Your task to perform on an android device: Open Chrome and go to settings Image 0: 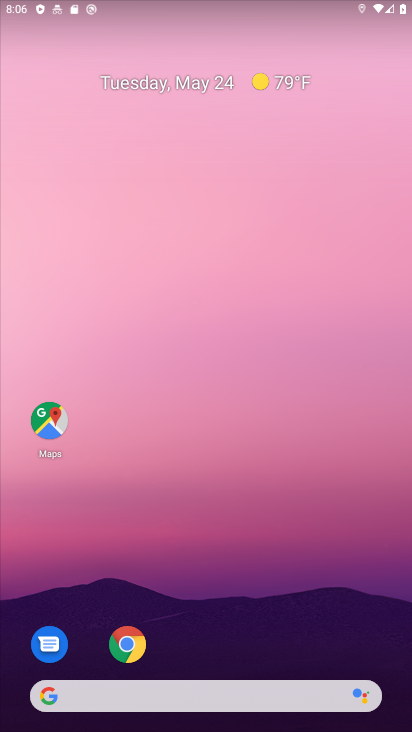
Step 0: drag from (265, 708) to (248, 26)
Your task to perform on an android device: Open Chrome and go to settings Image 1: 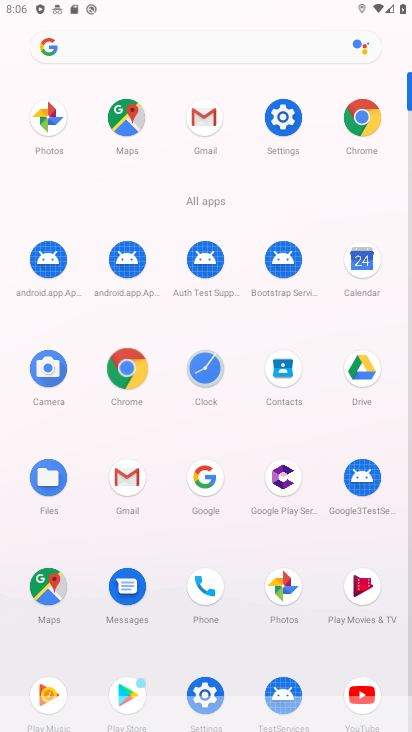
Step 1: click (280, 127)
Your task to perform on an android device: Open Chrome and go to settings Image 2: 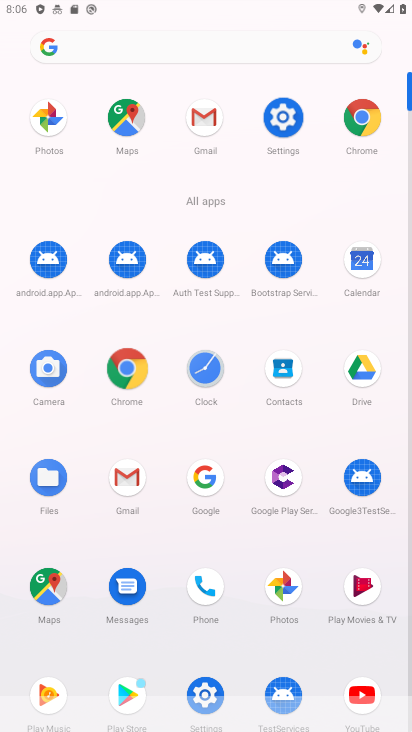
Step 2: click (281, 126)
Your task to perform on an android device: Open Chrome and go to settings Image 3: 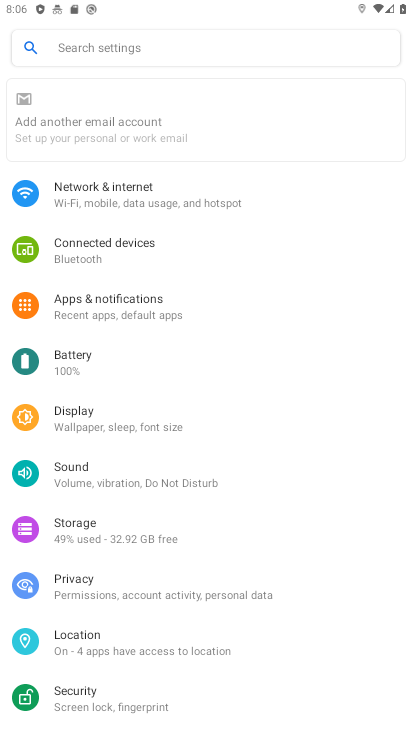
Step 3: press back button
Your task to perform on an android device: Open Chrome and go to settings Image 4: 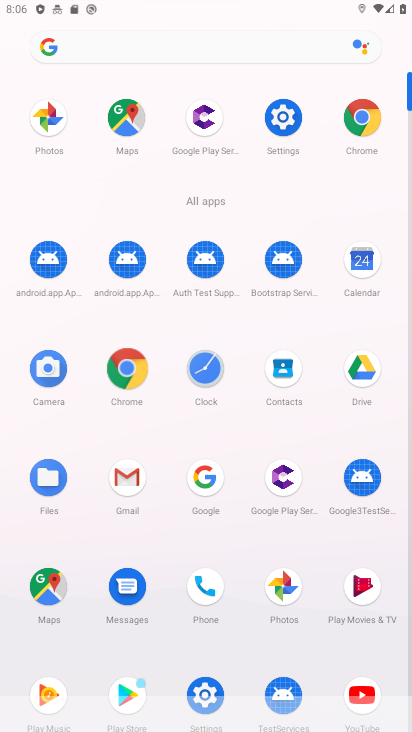
Step 4: click (364, 121)
Your task to perform on an android device: Open Chrome and go to settings Image 5: 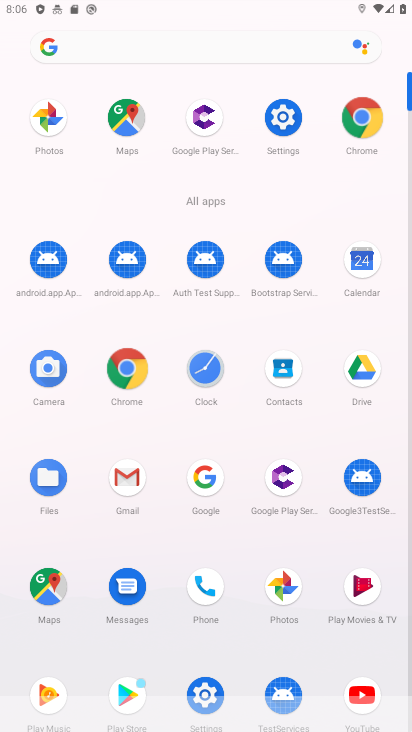
Step 5: click (365, 120)
Your task to perform on an android device: Open Chrome and go to settings Image 6: 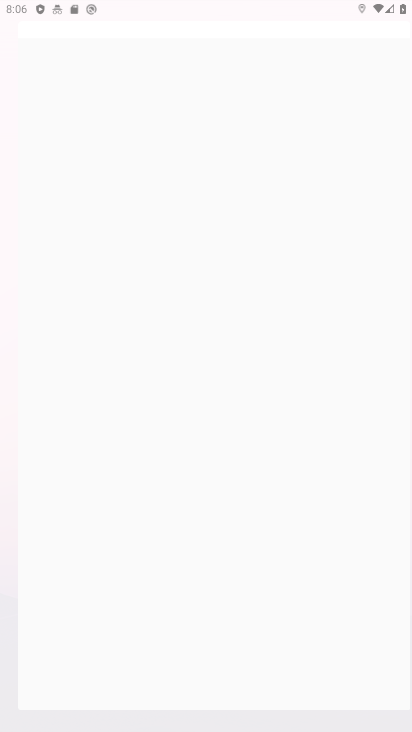
Step 6: click (366, 119)
Your task to perform on an android device: Open Chrome and go to settings Image 7: 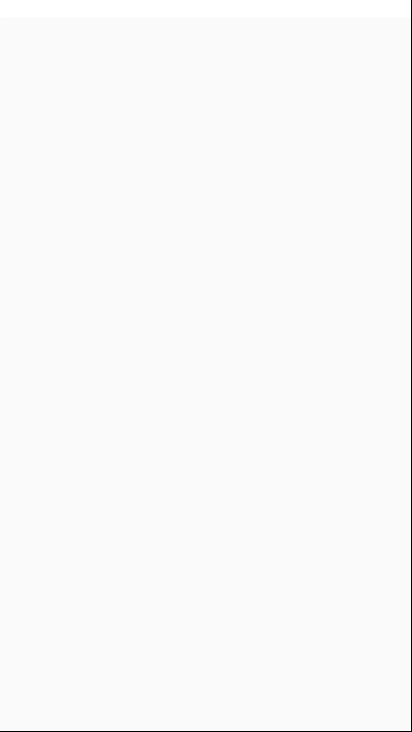
Step 7: click (367, 119)
Your task to perform on an android device: Open Chrome and go to settings Image 8: 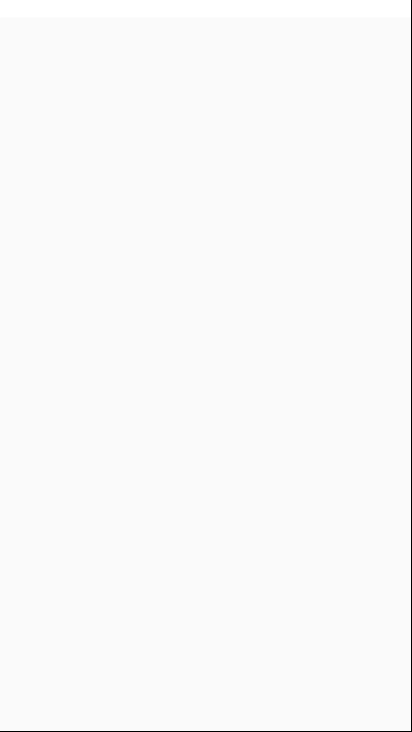
Step 8: click (368, 119)
Your task to perform on an android device: Open Chrome and go to settings Image 9: 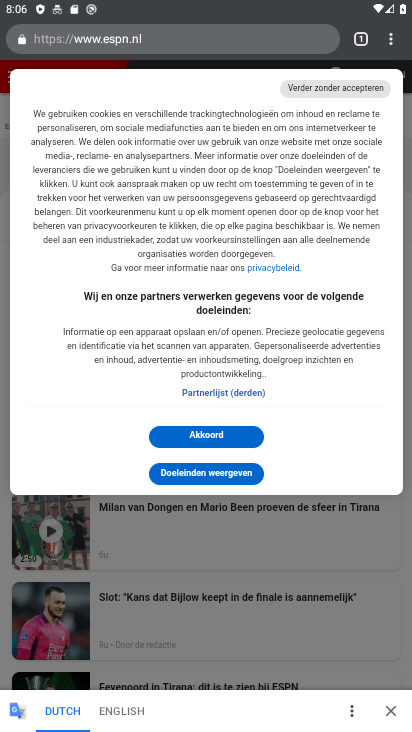
Step 9: click (210, 435)
Your task to perform on an android device: Open Chrome and go to settings Image 10: 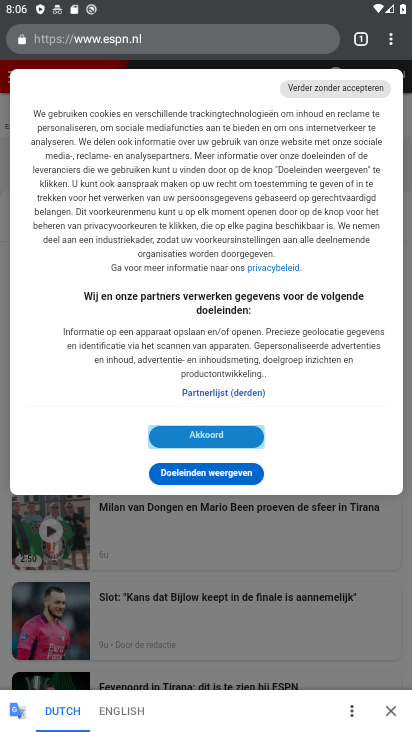
Step 10: click (210, 435)
Your task to perform on an android device: Open Chrome and go to settings Image 11: 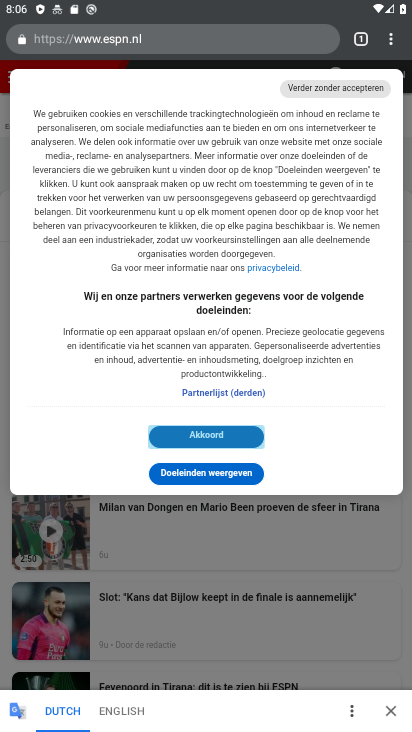
Step 11: click (210, 435)
Your task to perform on an android device: Open Chrome and go to settings Image 12: 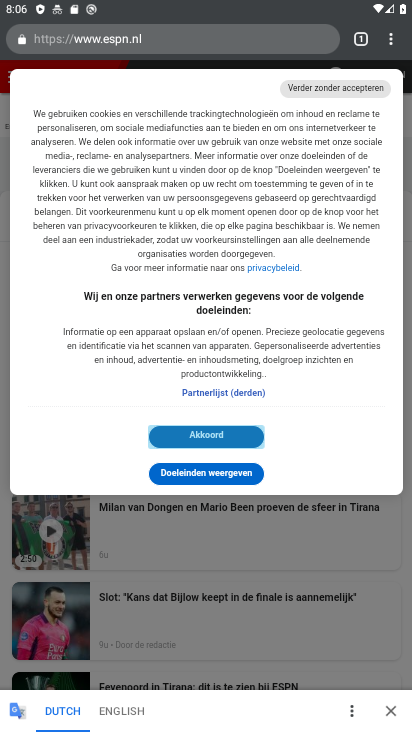
Step 12: click (211, 433)
Your task to perform on an android device: Open Chrome and go to settings Image 13: 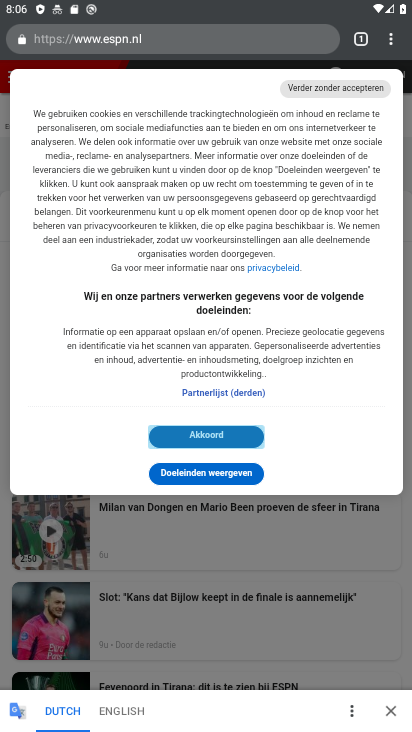
Step 13: click (211, 433)
Your task to perform on an android device: Open Chrome and go to settings Image 14: 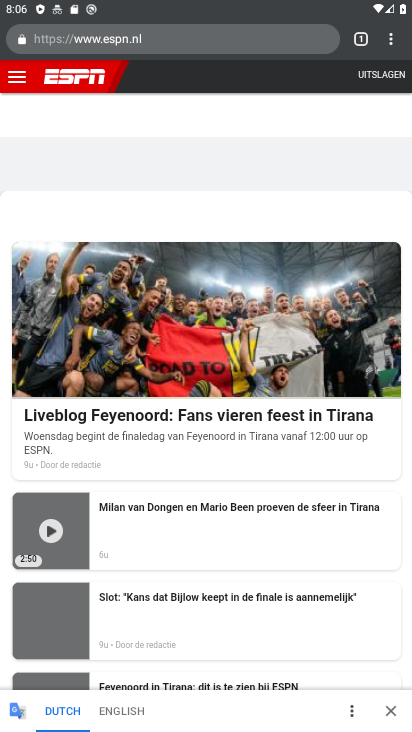
Step 14: drag from (393, 44) to (290, 368)
Your task to perform on an android device: Open Chrome and go to settings Image 15: 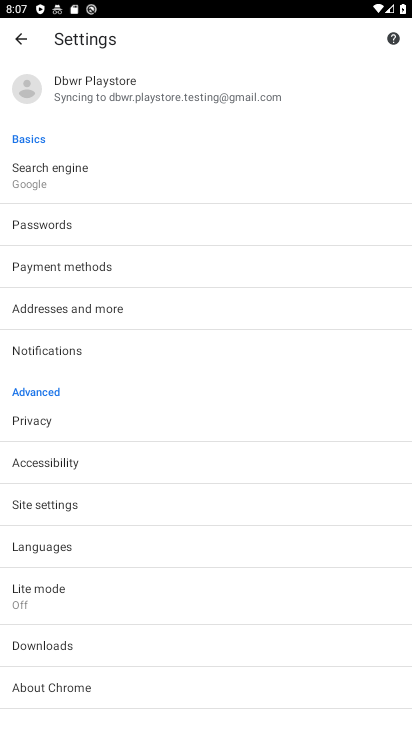
Step 15: click (41, 506)
Your task to perform on an android device: Open Chrome and go to settings Image 16: 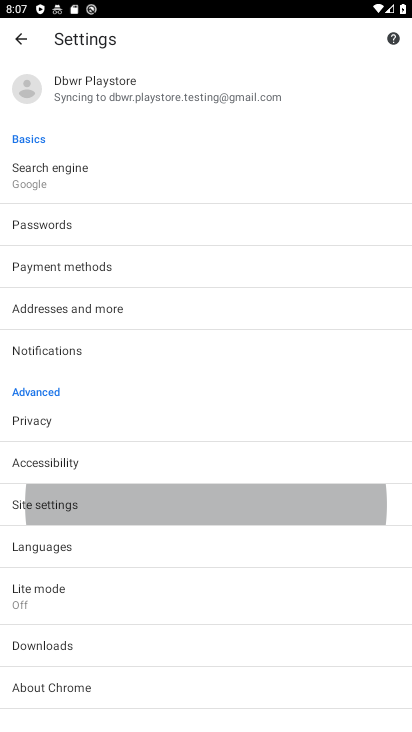
Step 16: click (41, 506)
Your task to perform on an android device: Open Chrome and go to settings Image 17: 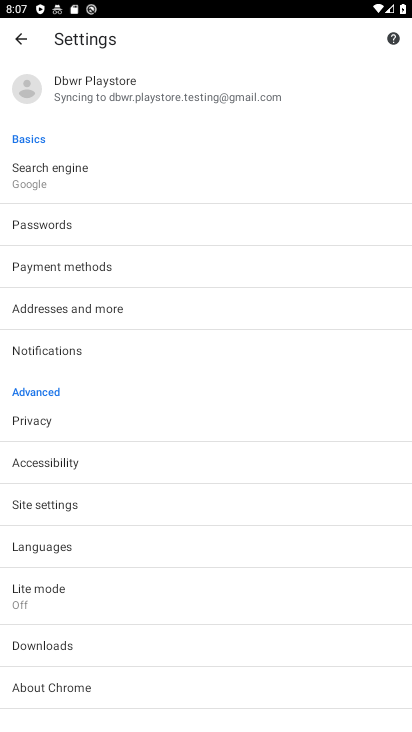
Step 17: click (42, 505)
Your task to perform on an android device: Open Chrome and go to settings Image 18: 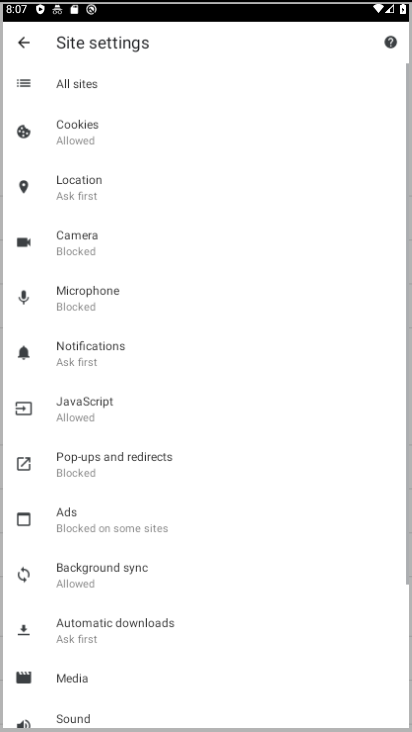
Step 18: click (42, 505)
Your task to perform on an android device: Open Chrome and go to settings Image 19: 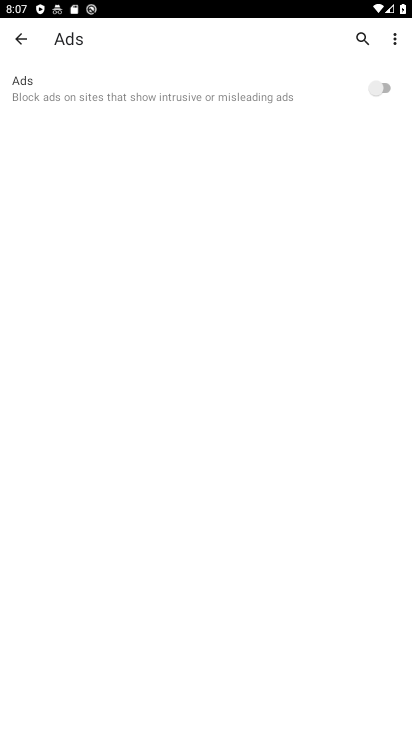
Step 19: click (20, 33)
Your task to perform on an android device: Open Chrome and go to settings Image 20: 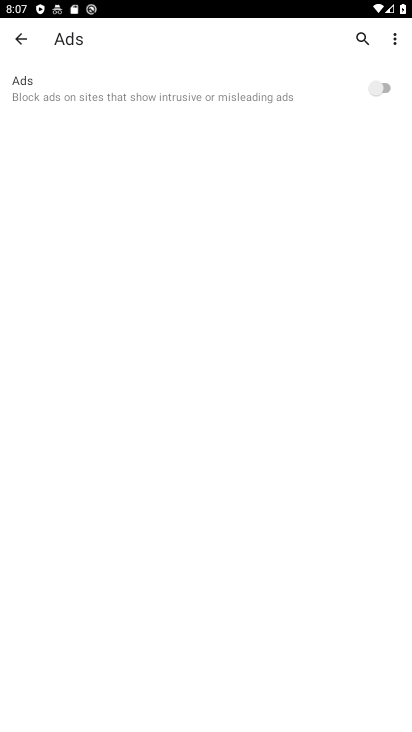
Step 20: click (20, 33)
Your task to perform on an android device: Open Chrome and go to settings Image 21: 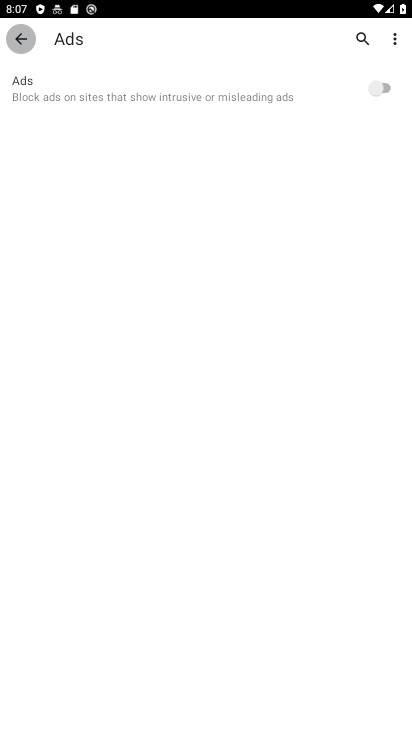
Step 21: click (21, 35)
Your task to perform on an android device: Open Chrome and go to settings Image 22: 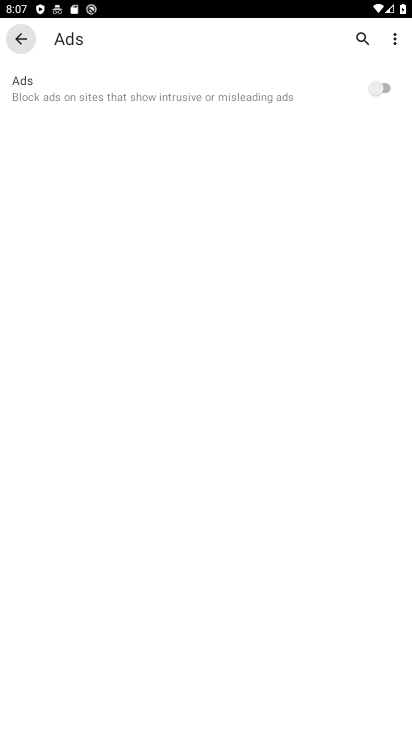
Step 22: click (26, 35)
Your task to perform on an android device: Open Chrome and go to settings Image 23: 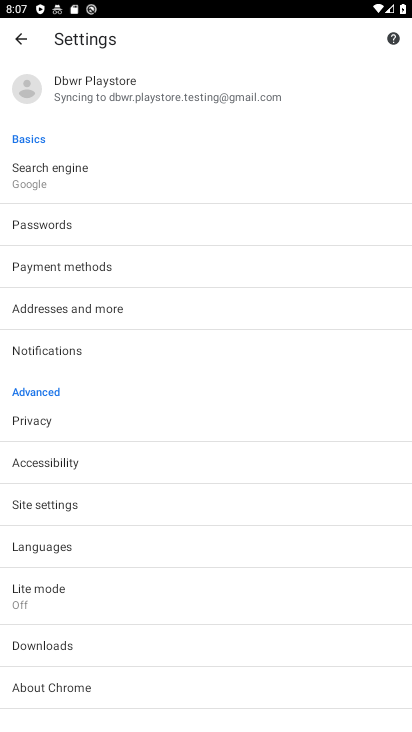
Step 23: click (52, 501)
Your task to perform on an android device: Open Chrome and go to settings Image 24: 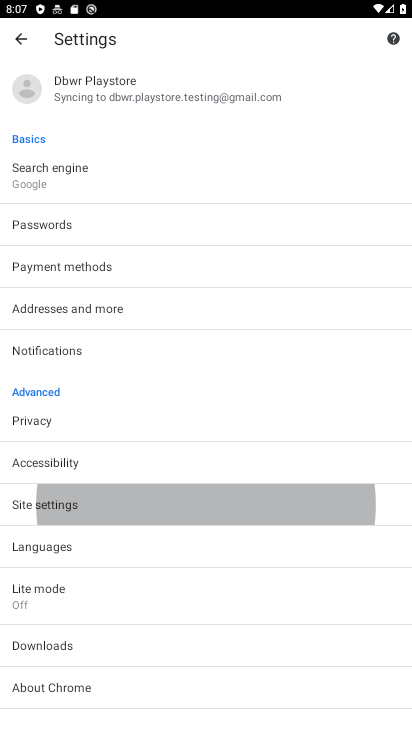
Step 24: click (52, 501)
Your task to perform on an android device: Open Chrome and go to settings Image 25: 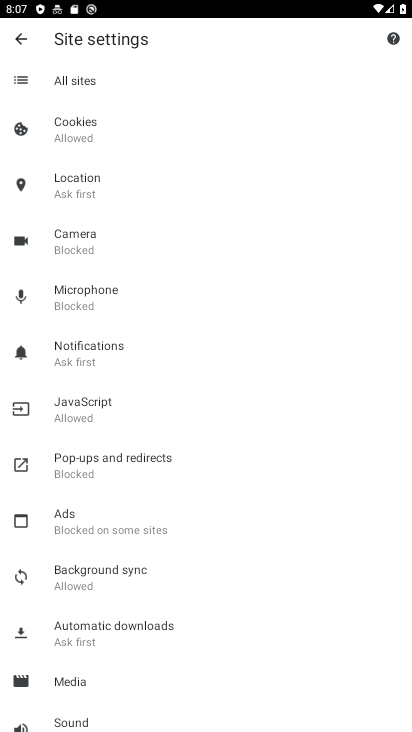
Step 25: task complete